Your task to perform on an android device: Go to Google maps Image 0: 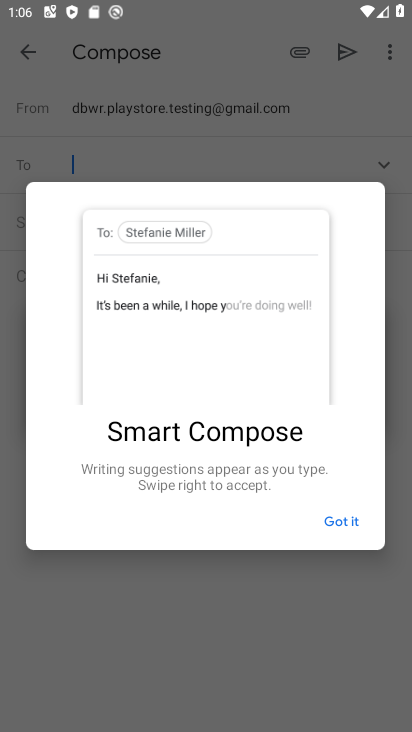
Step 0: press home button
Your task to perform on an android device: Go to Google maps Image 1: 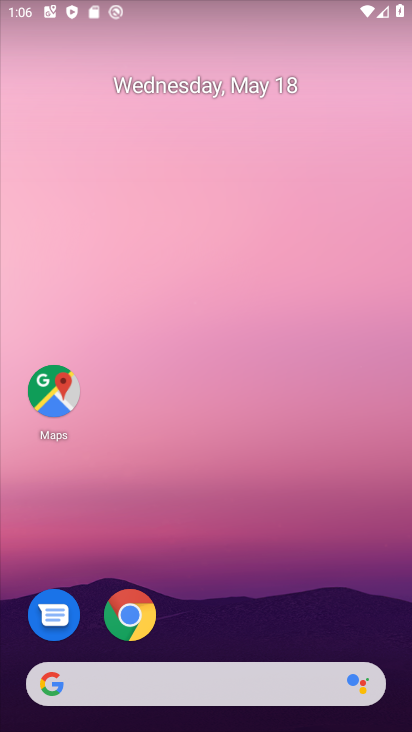
Step 1: drag from (325, 502) to (218, 31)
Your task to perform on an android device: Go to Google maps Image 2: 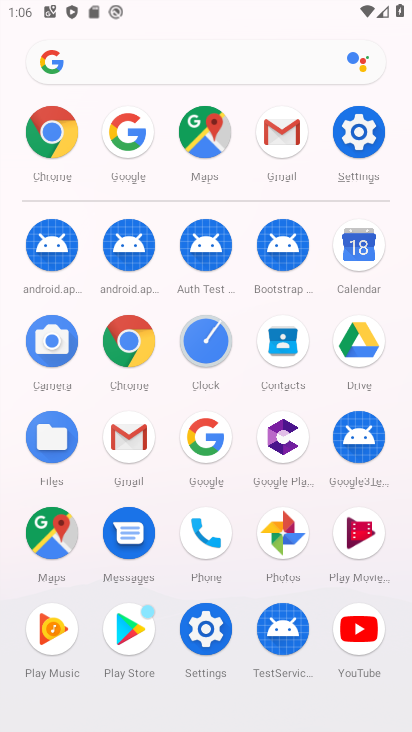
Step 2: click (69, 519)
Your task to perform on an android device: Go to Google maps Image 3: 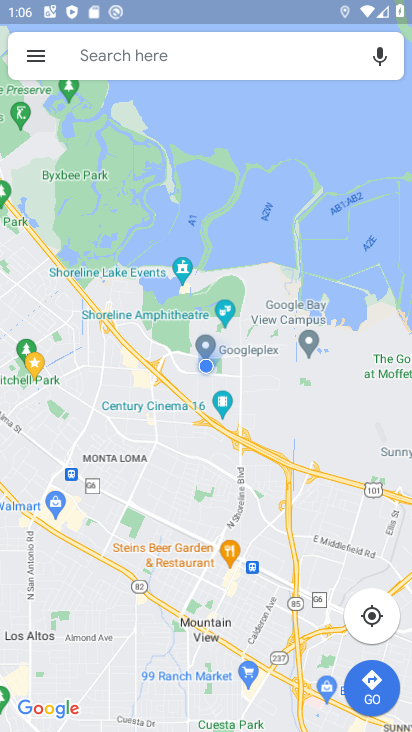
Step 3: task complete